Your task to perform on an android device: clear all cookies in the chrome app Image 0: 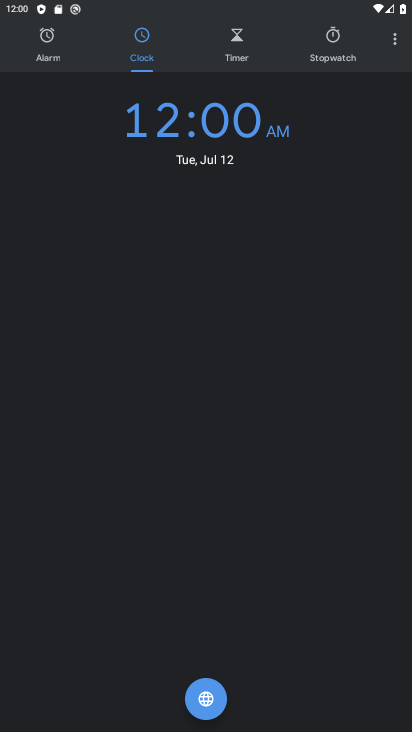
Step 0: press home button
Your task to perform on an android device: clear all cookies in the chrome app Image 1: 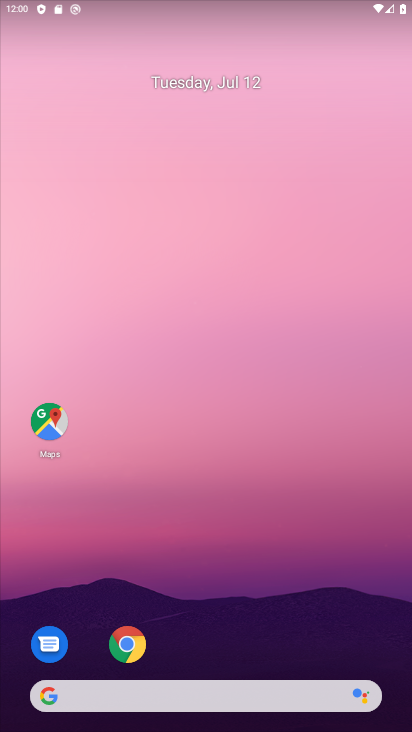
Step 1: click (149, 650)
Your task to perform on an android device: clear all cookies in the chrome app Image 2: 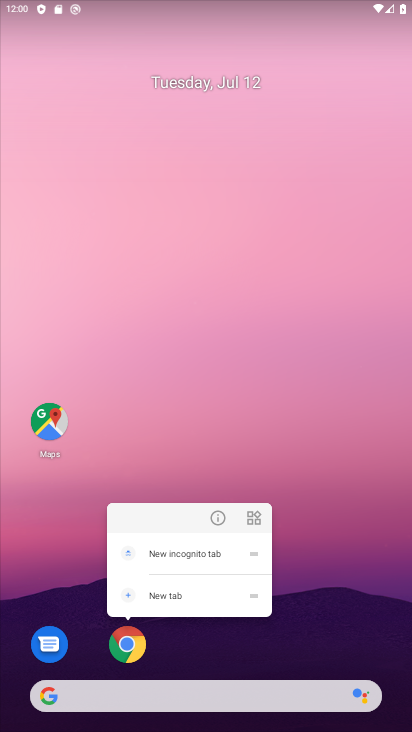
Step 2: click (121, 634)
Your task to perform on an android device: clear all cookies in the chrome app Image 3: 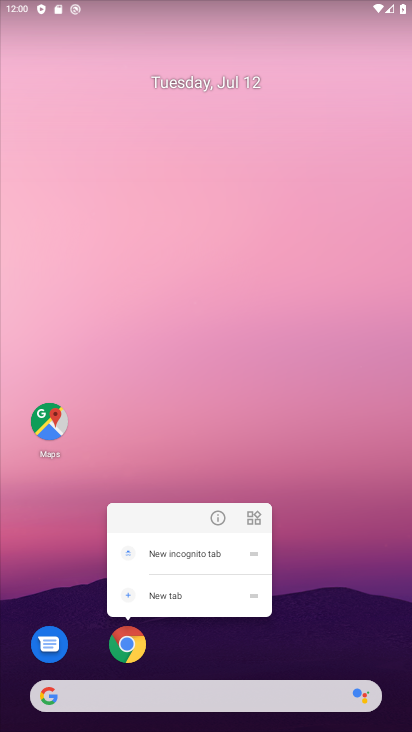
Step 3: click (132, 640)
Your task to perform on an android device: clear all cookies in the chrome app Image 4: 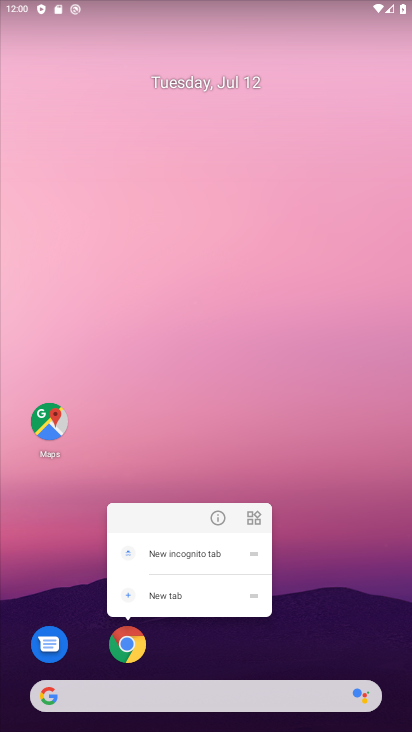
Step 4: task complete